Your task to perform on an android device: check data usage Image 0: 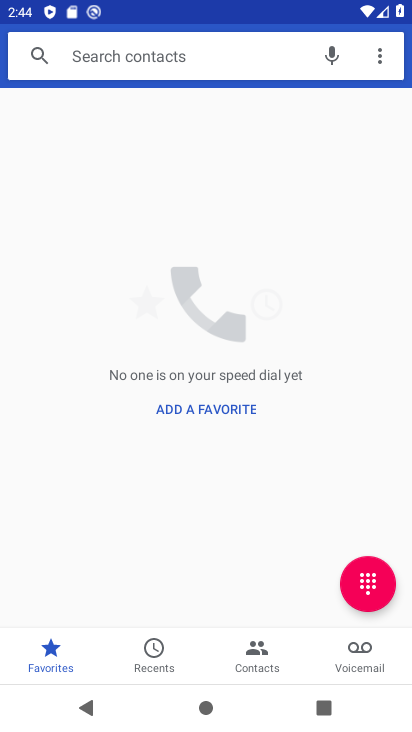
Step 0: press back button
Your task to perform on an android device: check data usage Image 1: 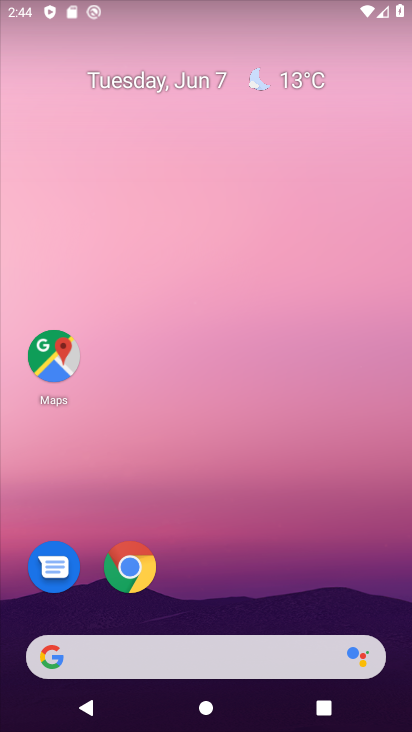
Step 1: drag from (209, 587) to (298, 16)
Your task to perform on an android device: check data usage Image 2: 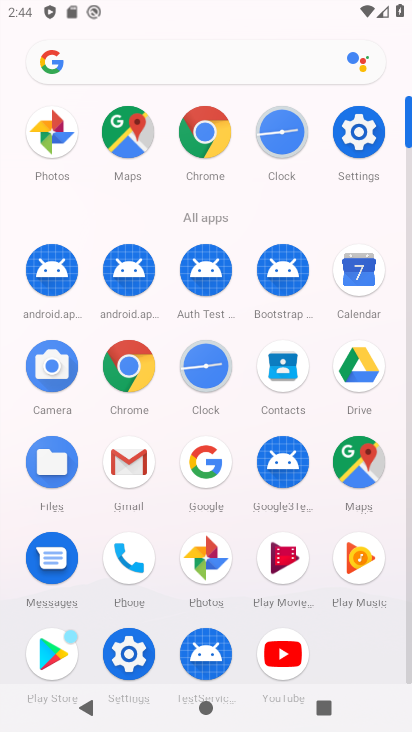
Step 2: click (356, 130)
Your task to perform on an android device: check data usage Image 3: 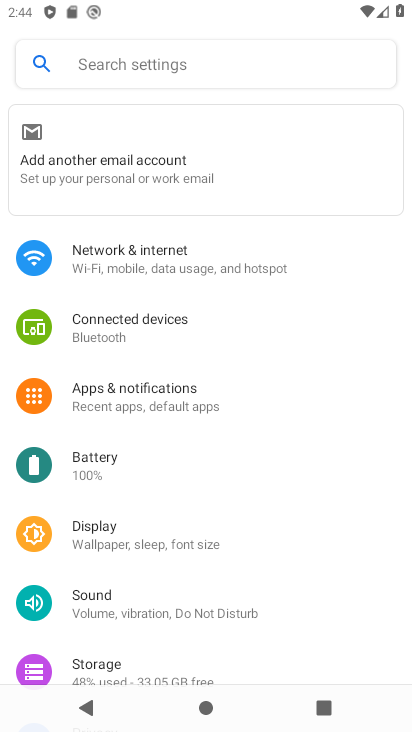
Step 3: click (143, 260)
Your task to perform on an android device: check data usage Image 4: 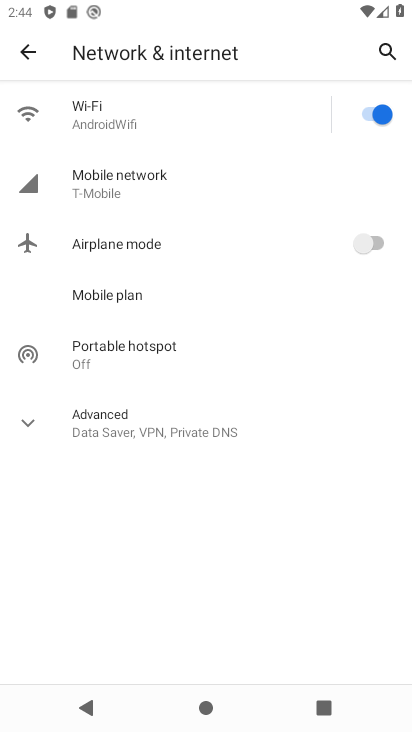
Step 4: click (145, 183)
Your task to perform on an android device: check data usage Image 5: 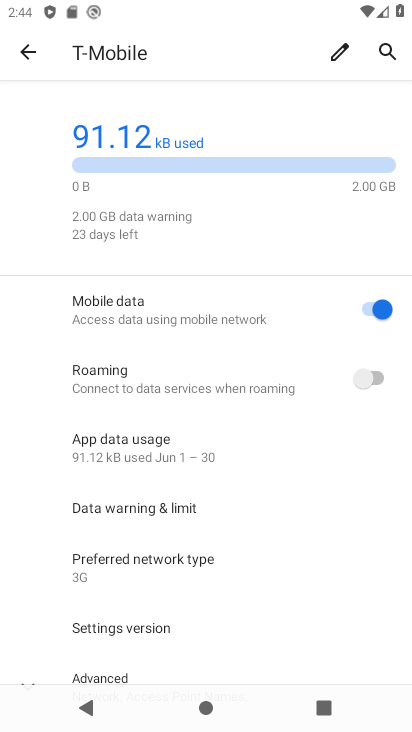
Step 5: click (111, 443)
Your task to perform on an android device: check data usage Image 6: 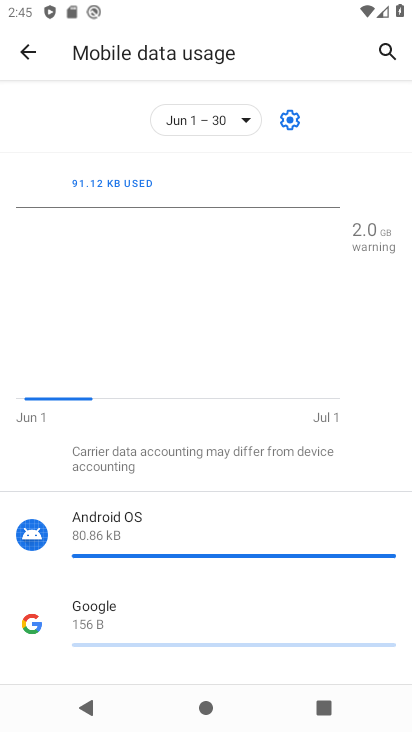
Step 6: task complete